Your task to perform on an android device: search for starred emails in the gmail app Image 0: 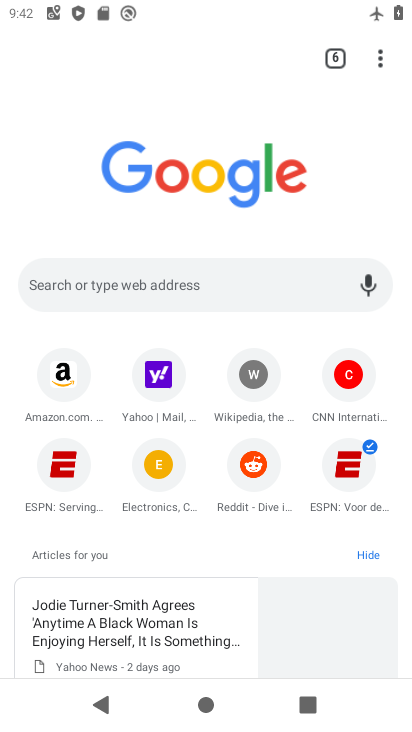
Step 0: press home button
Your task to perform on an android device: search for starred emails in the gmail app Image 1: 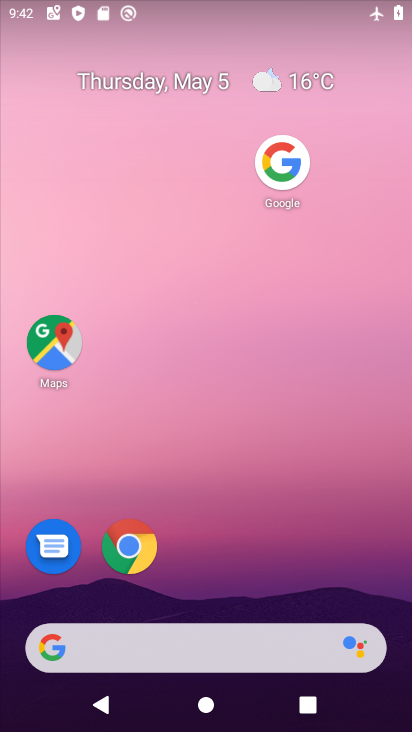
Step 1: drag from (186, 652) to (335, 127)
Your task to perform on an android device: search for starred emails in the gmail app Image 2: 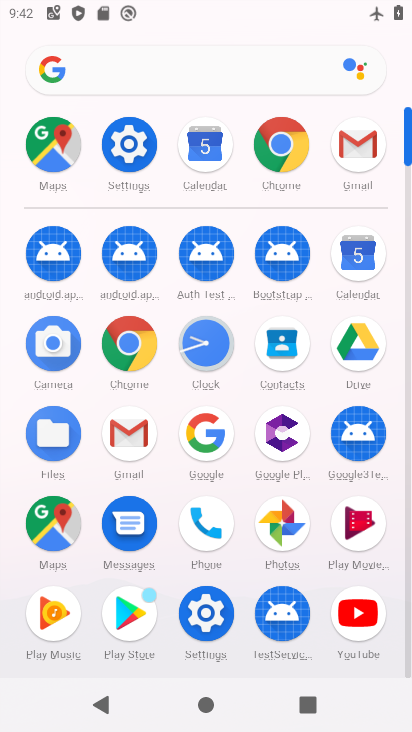
Step 2: click (354, 149)
Your task to perform on an android device: search for starred emails in the gmail app Image 3: 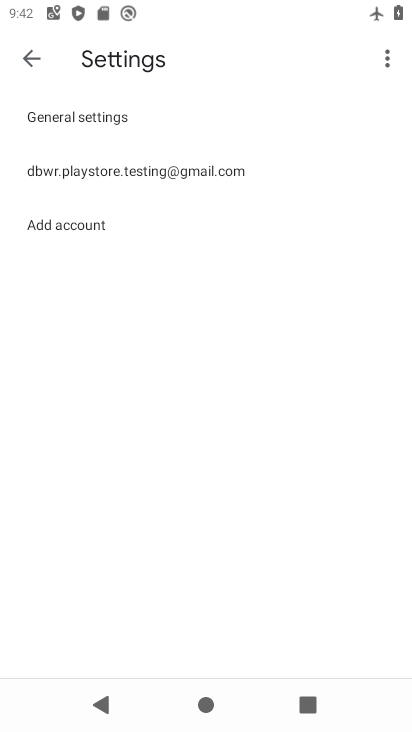
Step 3: click (36, 58)
Your task to perform on an android device: search for starred emails in the gmail app Image 4: 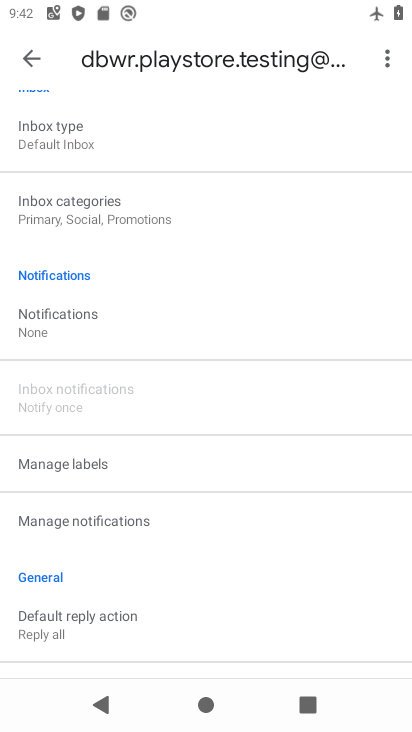
Step 4: click (29, 55)
Your task to perform on an android device: search for starred emails in the gmail app Image 5: 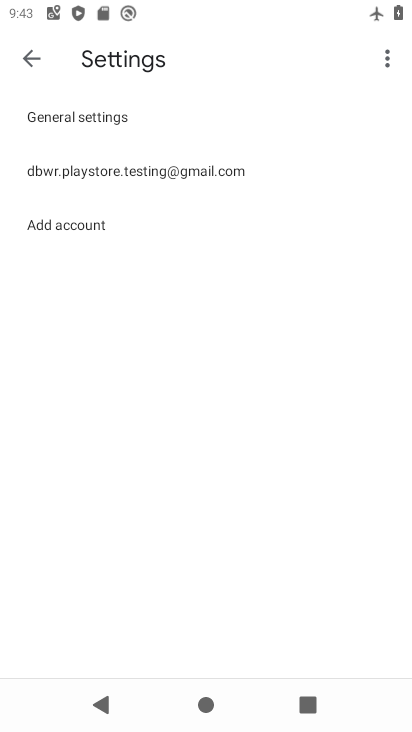
Step 5: click (34, 59)
Your task to perform on an android device: search for starred emails in the gmail app Image 6: 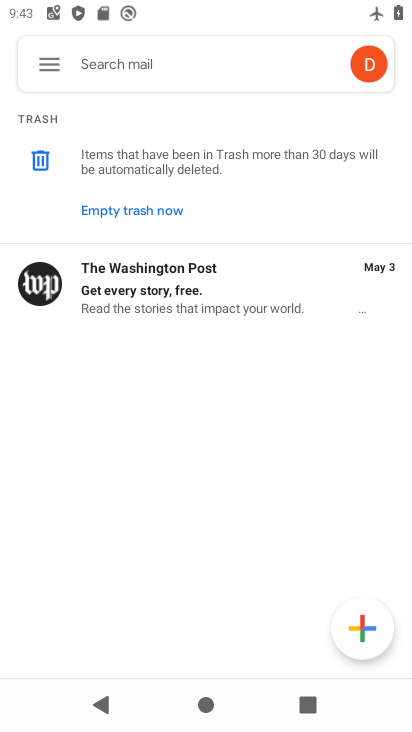
Step 6: click (40, 61)
Your task to perform on an android device: search for starred emails in the gmail app Image 7: 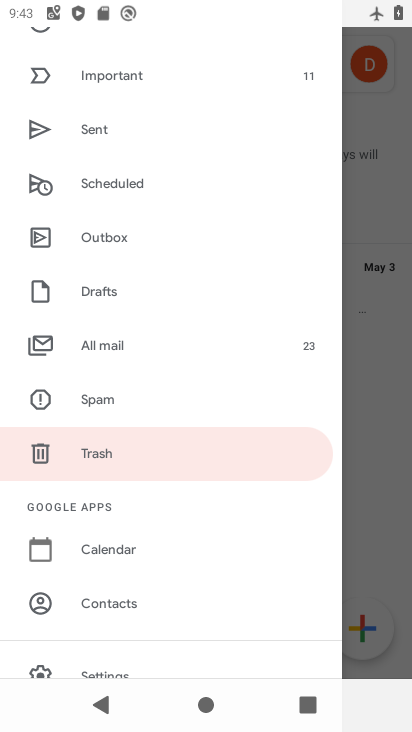
Step 7: drag from (226, 128) to (204, 518)
Your task to perform on an android device: search for starred emails in the gmail app Image 8: 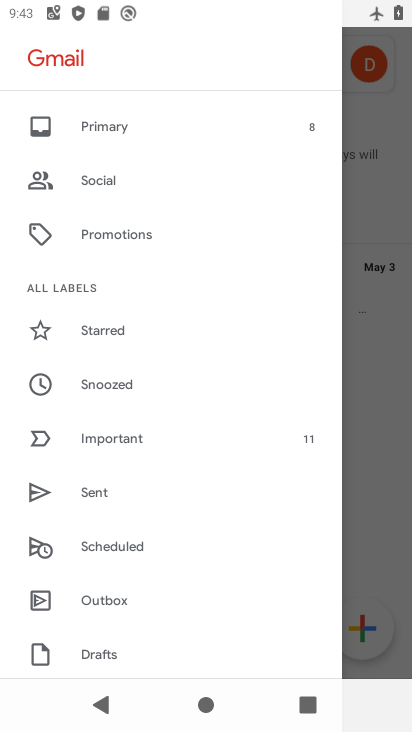
Step 8: click (107, 333)
Your task to perform on an android device: search for starred emails in the gmail app Image 9: 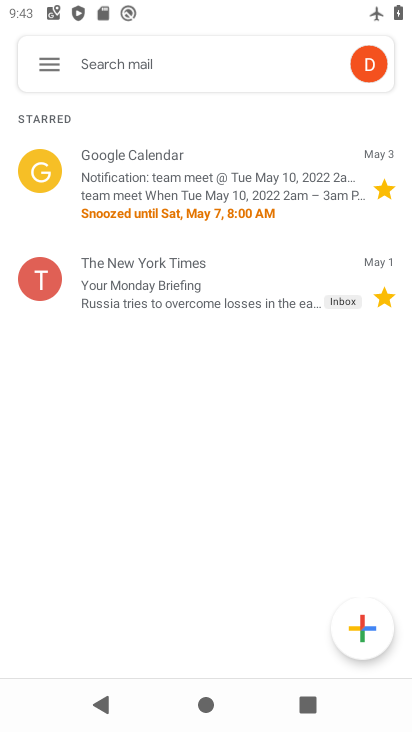
Step 9: task complete